Your task to perform on an android device: check google app version Image 0: 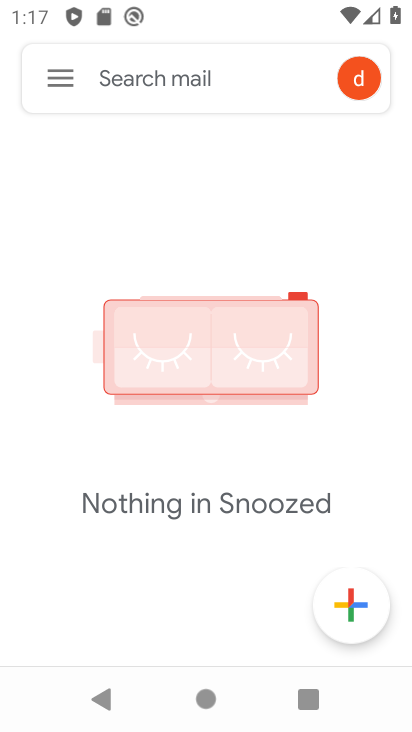
Step 0: press home button
Your task to perform on an android device: check google app version Image 1: 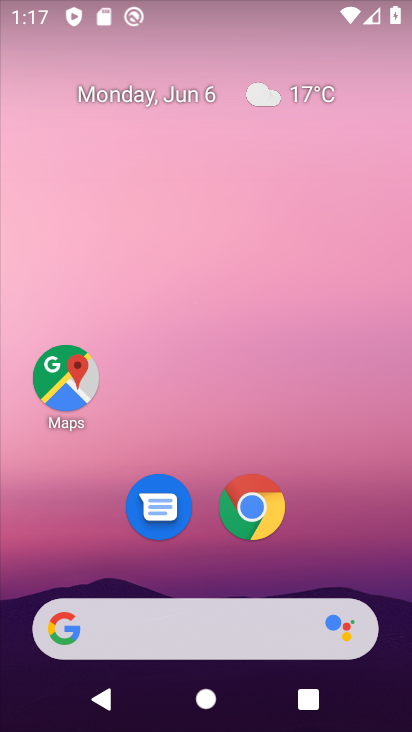
Step 1: drag from (240, 600) to (285, 100)
Your task to perform on an android device: check google app version Image 2: 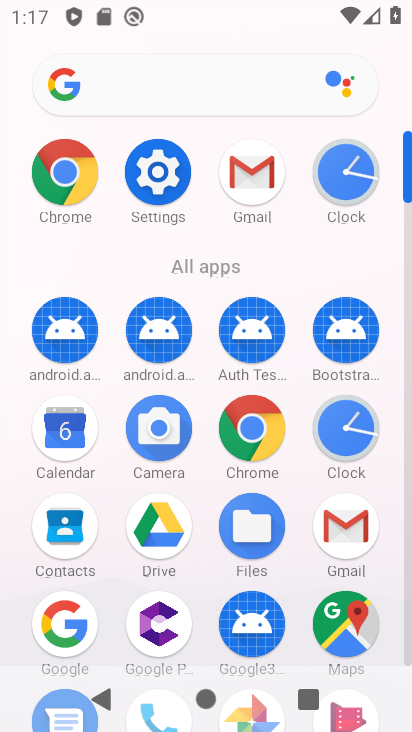
Step 2: click (100, 185)
Your task to perform on an android device: check google app version Image 3: 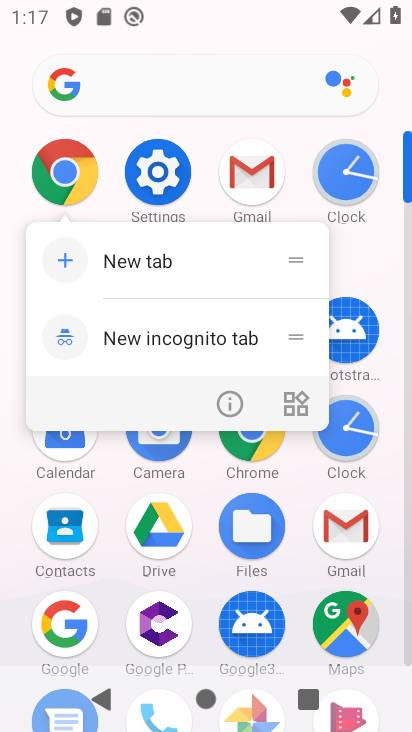
Step 3: click (68, 180)
Your task to perform on an android device: check google app version Image 4: 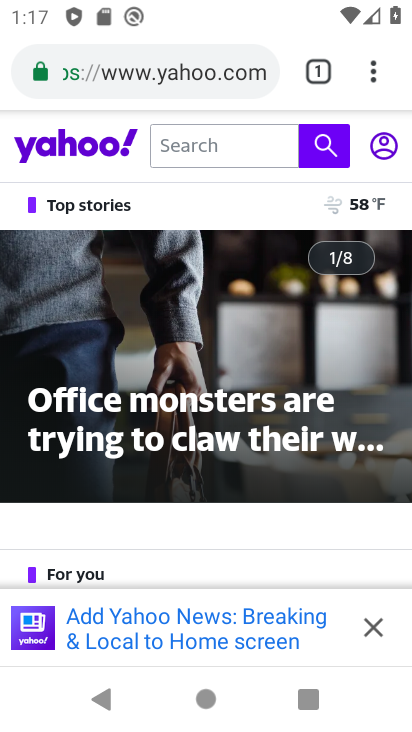
Step 4: click (375, 84)
Your task to perform on an android device: check google app version Image 5: 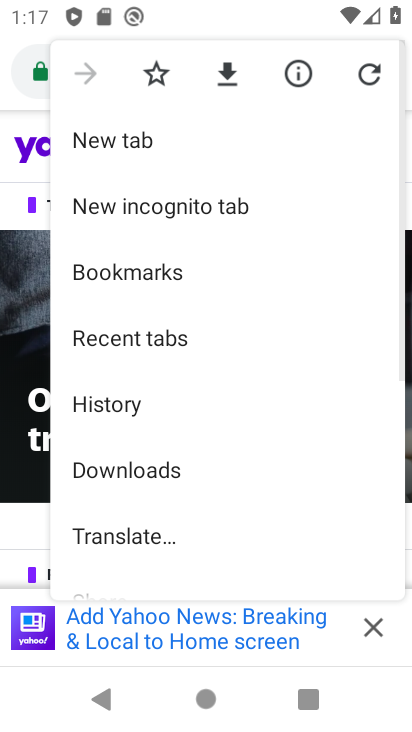
Step 5: drag from (148, 509) to (221, 295)
Your task to perform on an android device: check google app version Image 6: 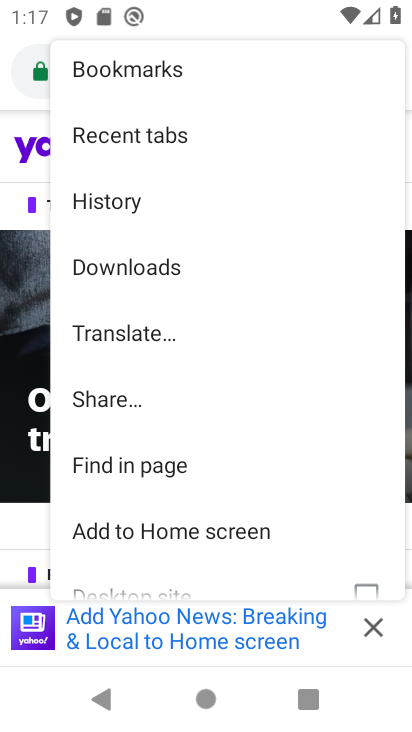
Step 6: drag from (142, 518) to (236, 188)
Your task to perform on an android device: check google app version Image 7: 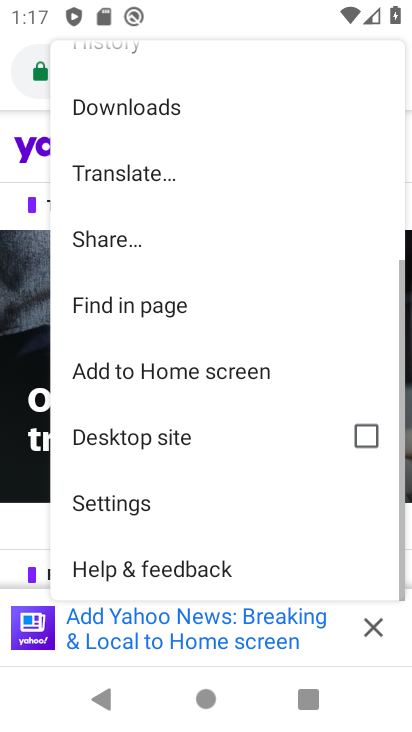
Step 7: click (89, 502)
Your task to perform on an android device: check google app version Image 8: 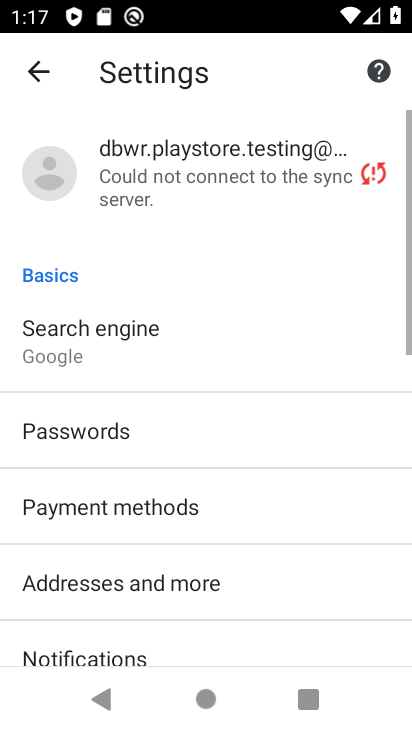
Step 8: drag from (207, 522) to (288, 190)
Your task to perform on an android device: check google app version Image 9: 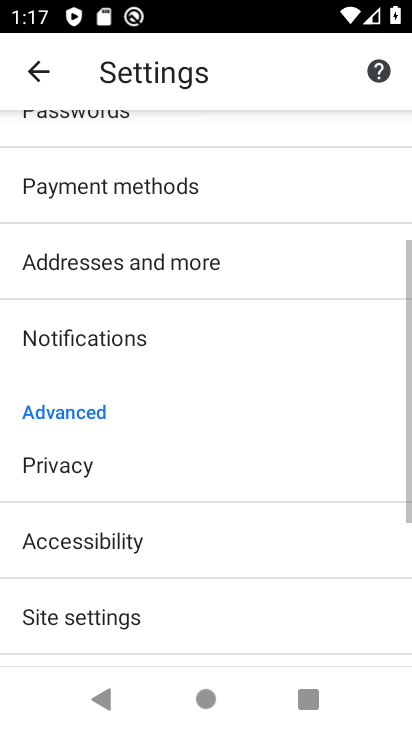
Step 9: drag from (237, 500) to (261, 174)
Your task to perform on an android device: check google app version Image 10: 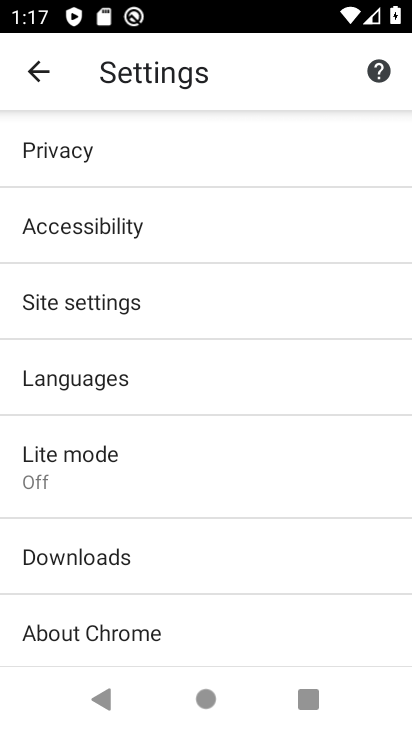
Step 10: click (101, 622)
Your task to perform on an android device: check google app version Image 11: 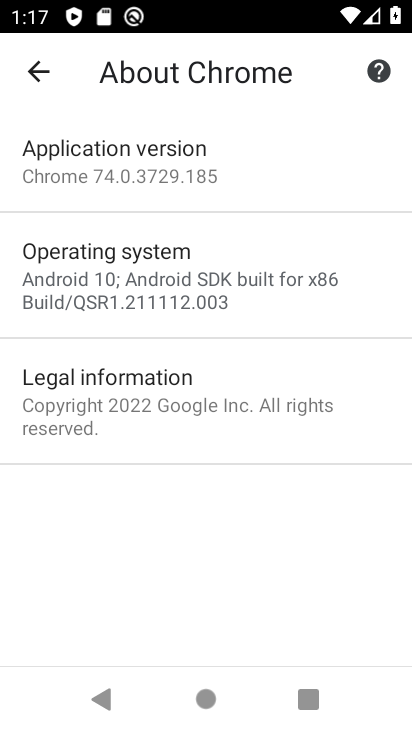
Step 11: click (166, 168)
Your task to perform on an android device: check google app version Image 12: 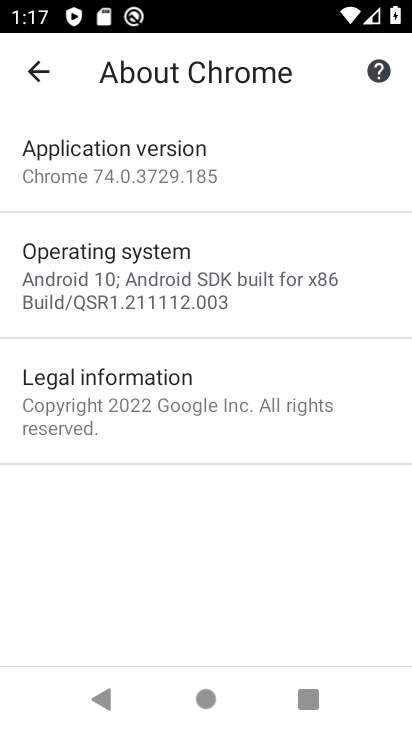
Step 12: task complete